Your task to perform on an android device: Go to Android settings Image 0: 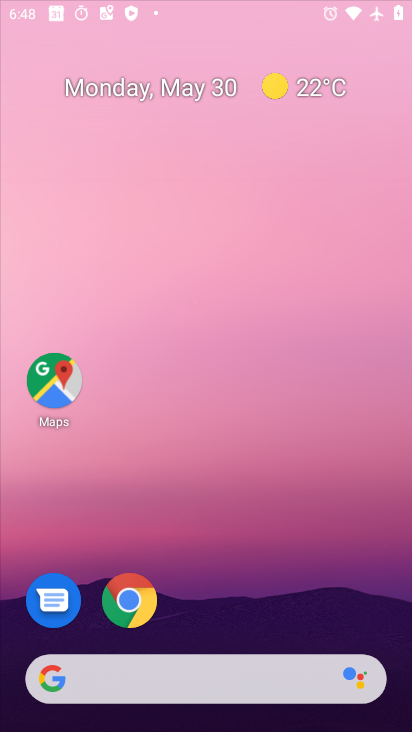
Step 0: press home button
Your task to perform on an android device: Go to Android settings Image 1: 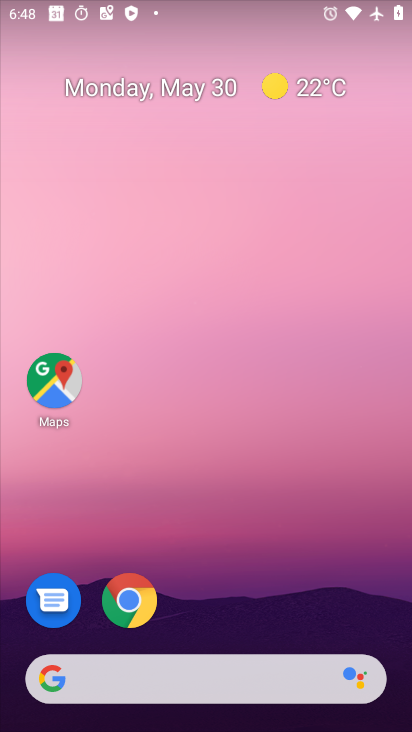
Step 1: drag from (221, 624) to (225, 57)
Your task to perform on an android device: Go to Android settings Image 2: 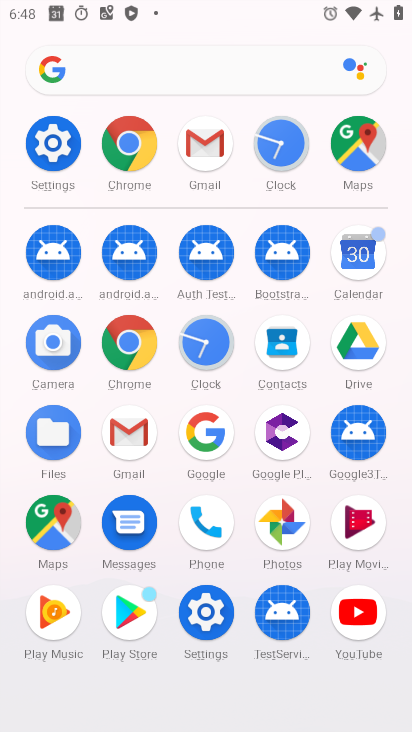
Step 2: click (60, 137)
Your task to perform on an android device: Go to Android settings Image 3: 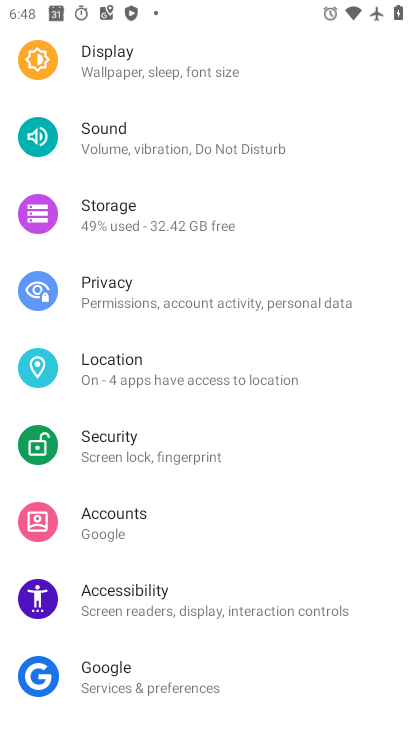
Step 3: task complete